Your task to perform on an android device: Open calendar and show me the first week of next month Image 0: 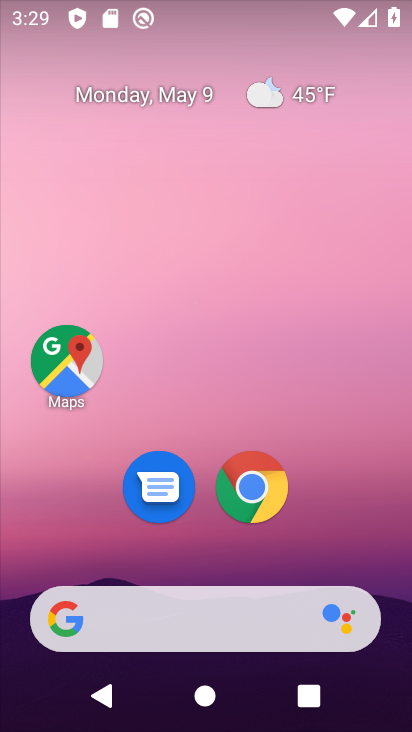
Step 0: drag from (204, 557) to (205, 134)
Your task to perform on an android device: Open calendar and show me the first week of next month Image 1: 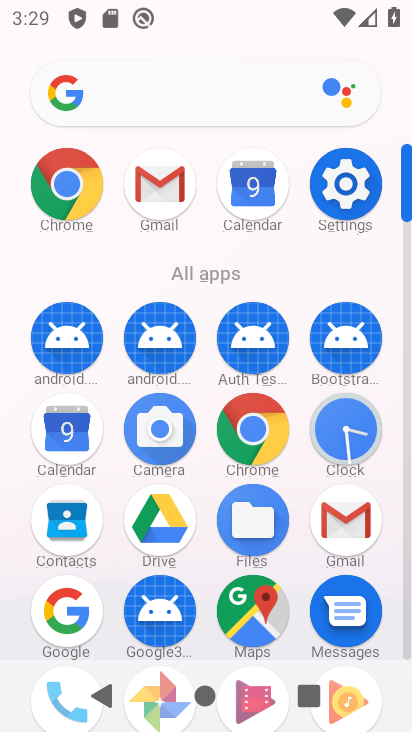
Step 1: click (250, 208)
Your task to perform on an android device: Open calendar and show me the first week of next month Image 2: 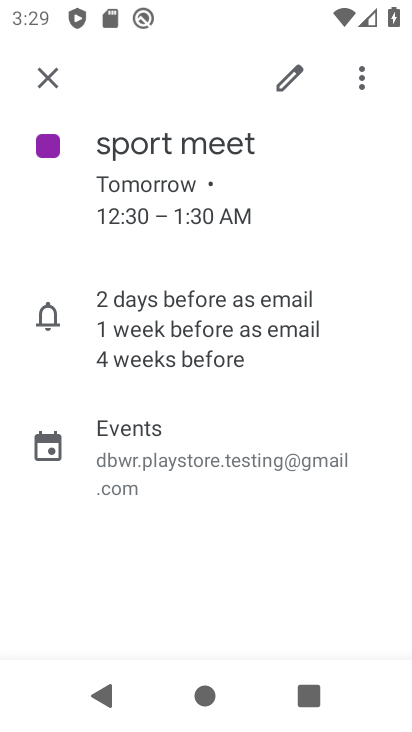
Step 2: click (42, 80)
Your task to perform on an android device: Open calendar and show me the first week of next month Image 3: 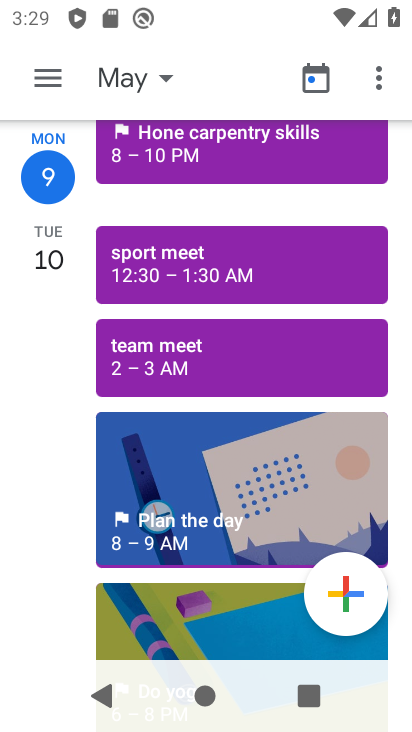
Step 3: click (167, 78)
Your task to perform on an android device: Open calendar and show me the first week of next month Image 4: 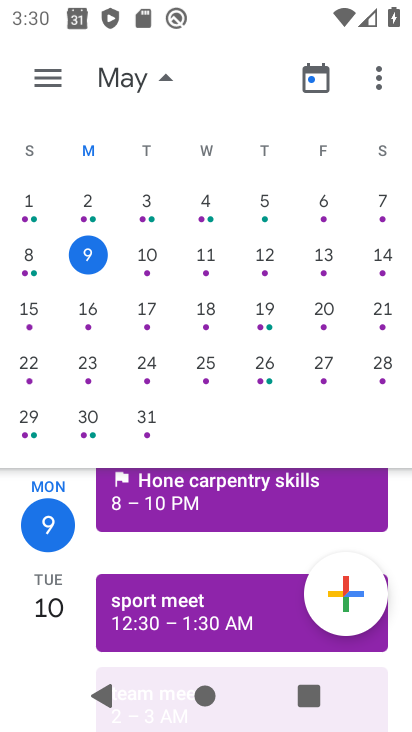
Step 4: task complete